Your task to perform on an android device: change notifications settings Image 0: 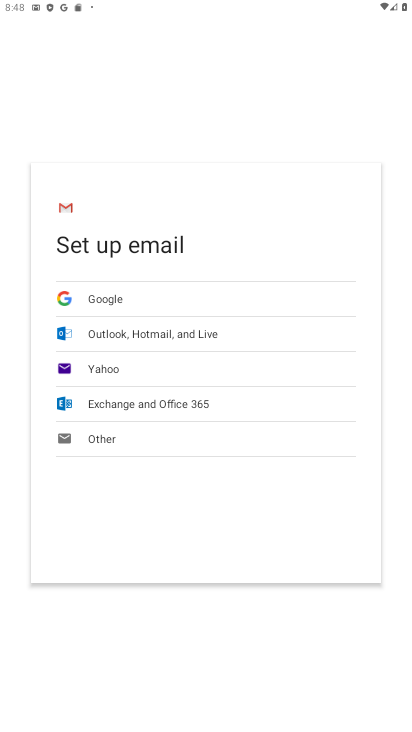
Step 0: press home button
Your task to perform on an android device: change notifications settings Image 1: 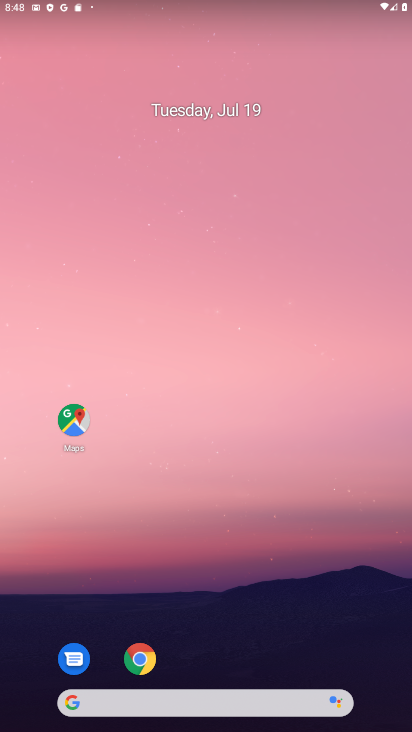
Step 1: drag from (267, 658) to (193, 112)
Your task to perform on an android device: change notifications settings Image 2: 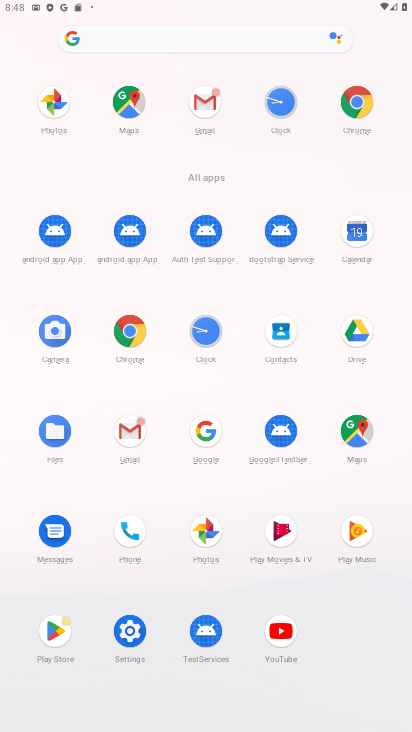
Step 2: click (129, 624)
Your task to perform on an android device: change notifications settings Image 3: 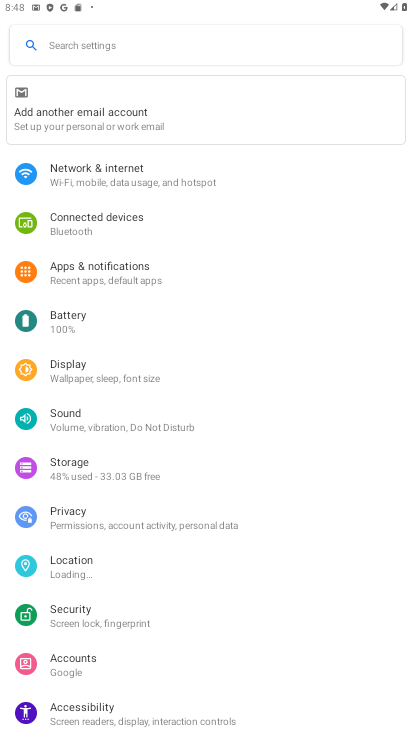
Step 3: drag from (180, 617) to (142, 265)
Your task to perform on an android device: change notifications settings Image 4: 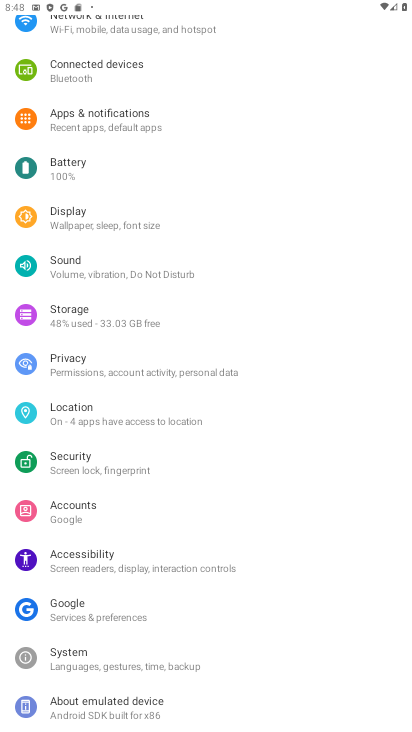
Step 4: click (63, 112)
Your task to perform on an android device: change notifications settings Image 5: 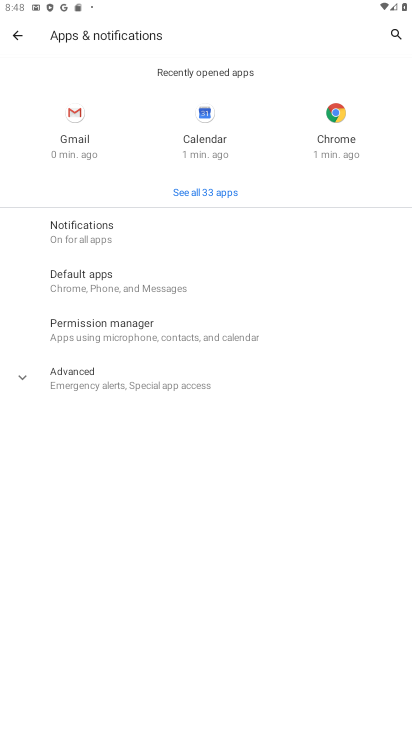
Step 5: click (74, 228)
Your task to perform on an android device: change notifications settings Image 6: 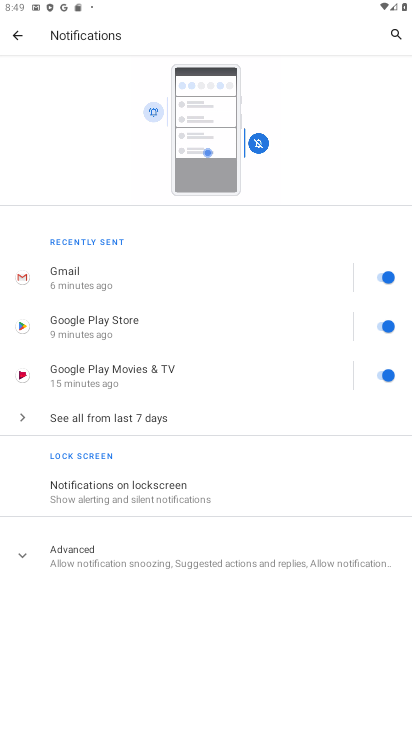
Step 6: click (175, 477)
Your task to perform on an android device: change notifications settings Image 7: 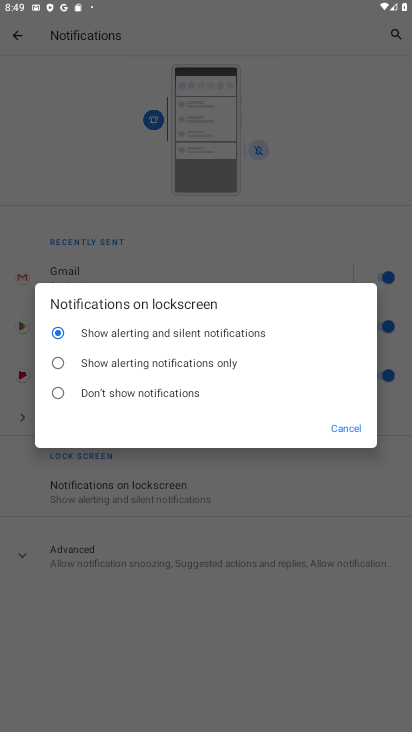
Step 7: click (96, 365)
Your task to perform on an android device: change notifications settings Image 8: 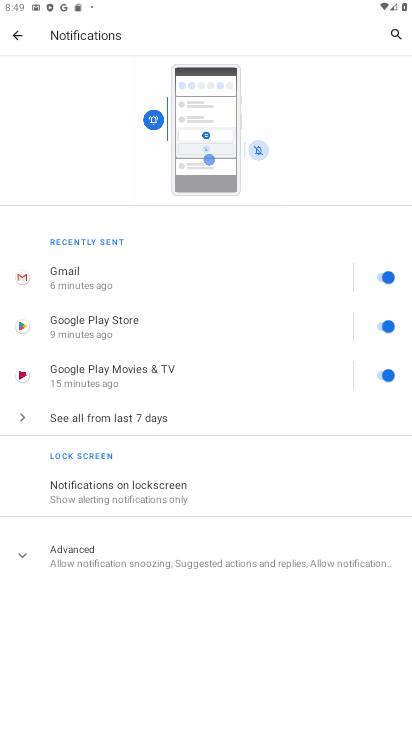
Step 8: task complete